Your task to perform on an android device: Open accessibility settings Image 0: 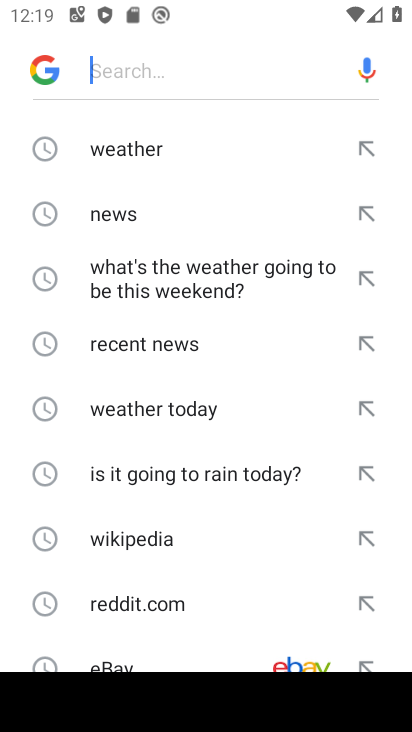
Step 0: press home button
Your task to perform on an android device: Open accessibility settings Image 1: 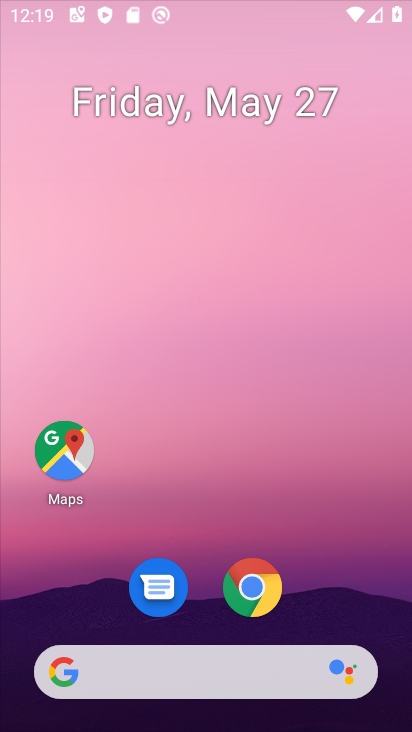
Step 1: drag from (137, 728) to (176, 70)
Your task to perform on an android device: Open accessibility settings Image 2: 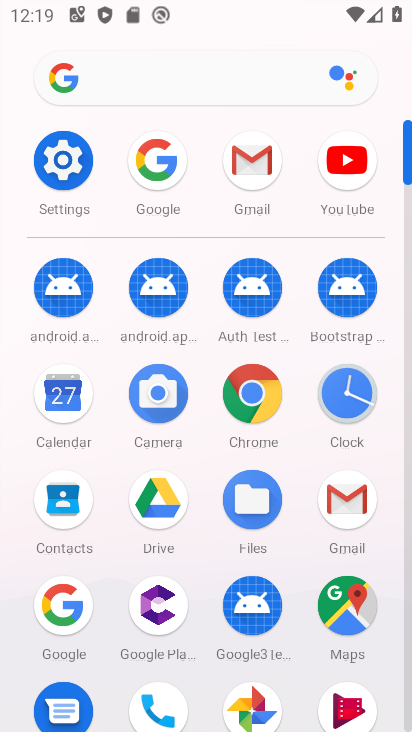
Step 2: click (89, 174)
Your task to perform on an android device: Open accessibility settings Image 3: 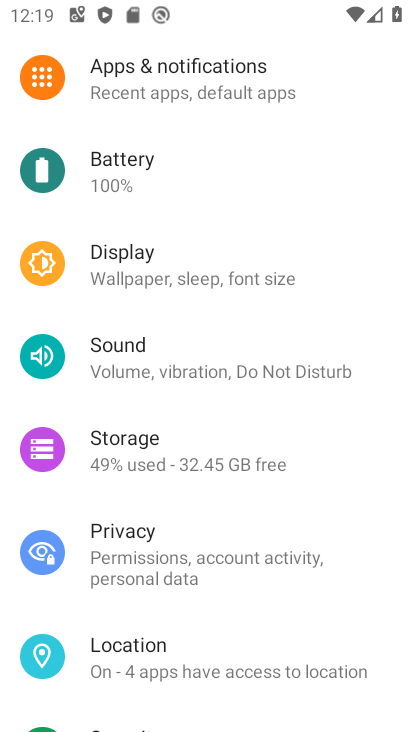
Step 3: drag from (213, 704) to (226, 55)
Your task to perform on an android device: Open accessibility settings Image 4: 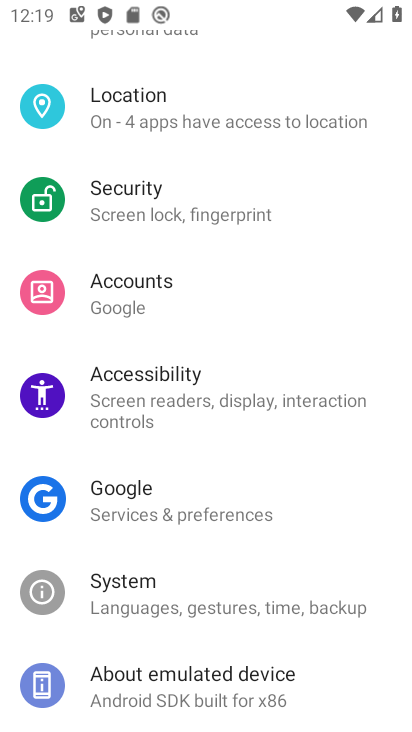
Step 4: click (152, 412)
Your task to perform on an android device: Open accessibility settings Image 5: 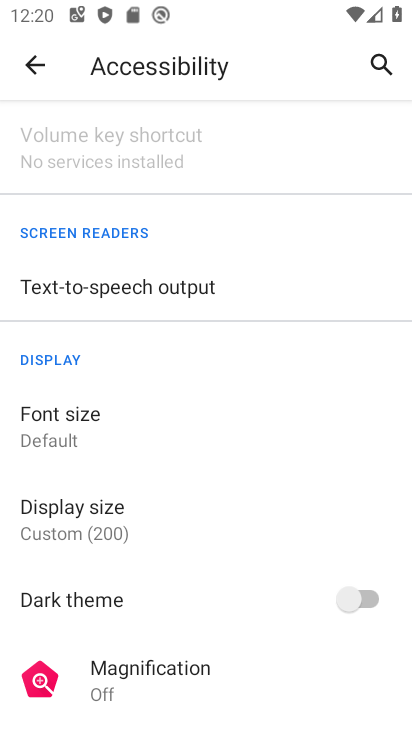
Step 5: task complete